Your task to perform on an android device: Show me recent news Image 0: 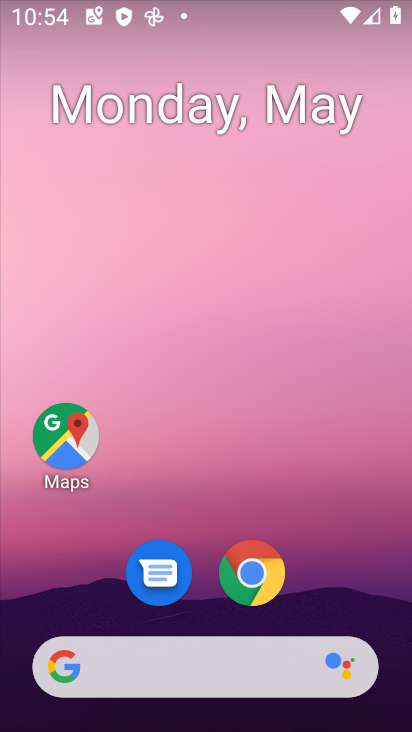
Step 0: click (240, 670)
Your task to perform on an android device: Show me recent news Image 1: 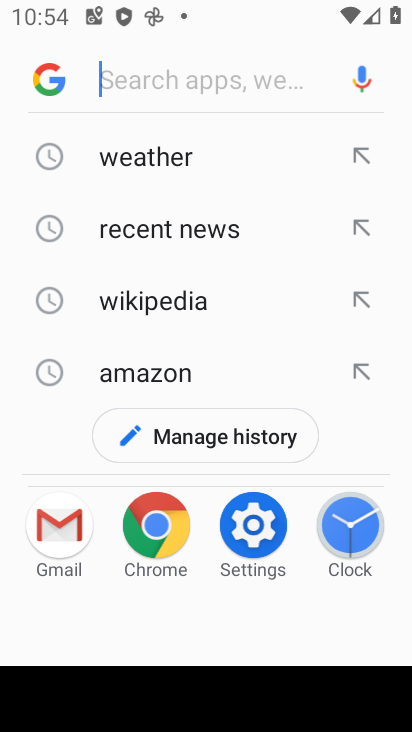
Step 1: click (189, 242)
Your task to perform on an android device: Show me recent news Image 2: 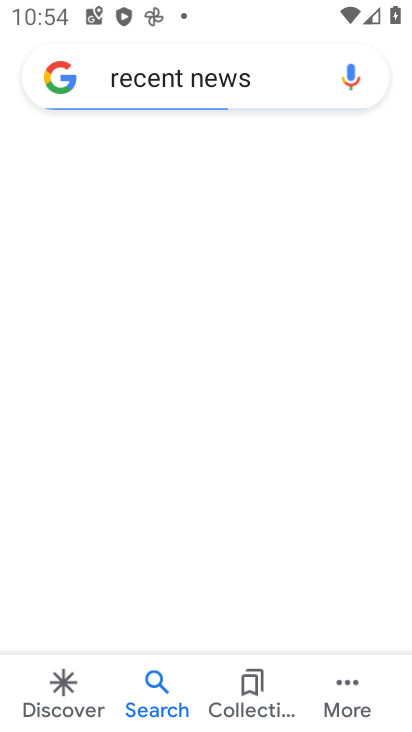
Step 2: task complete